Your task to perform on an android device: Go to calendar. Show me events next week Image 0: 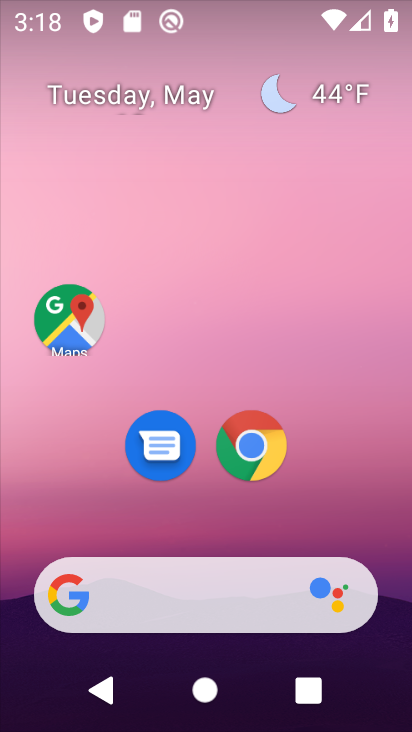
Step 0: drag from (154, 513) to (291, 59)
Your task to perform on an android device: Go to calendar. Show me events next week Image 1: 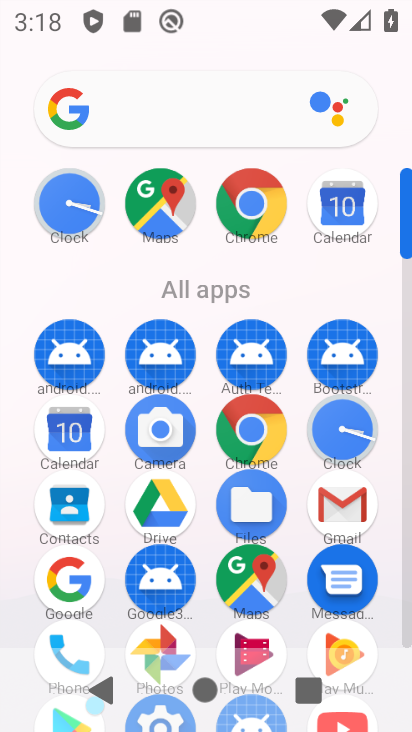
Step 1: click (74, 438)
Your task to perform on an android device: Go to calendar. Show me events next week Image 2: 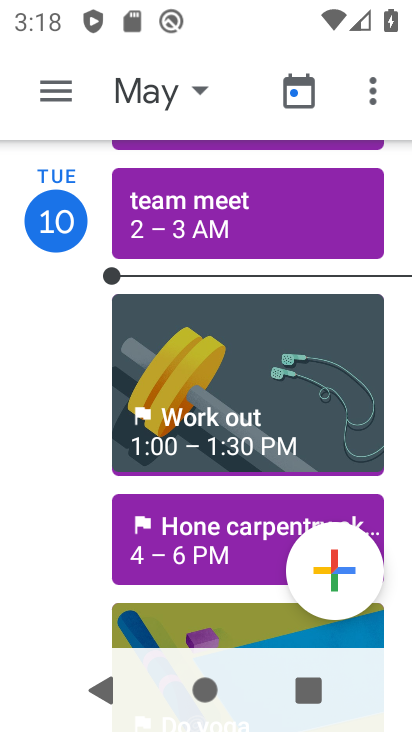
Step 2: click (171, 89)
Your task to perform on an android device: Go to calendar. Show me events next week Image 3: 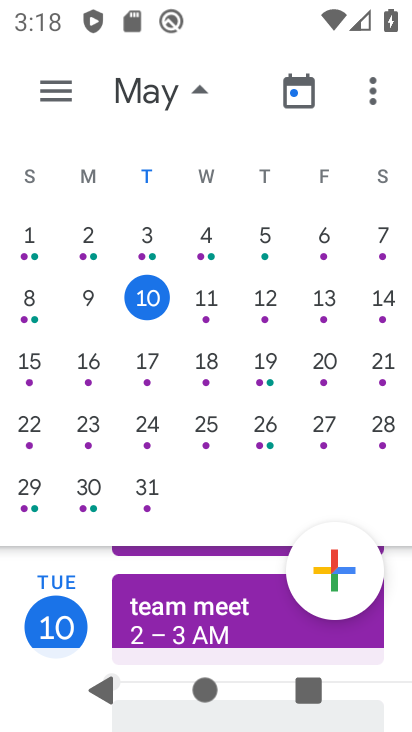
Step 3: drag from (383, 374) to (46, 321)
Your task to perform on an android device: Go to calendar. Show me events next week Image 4: 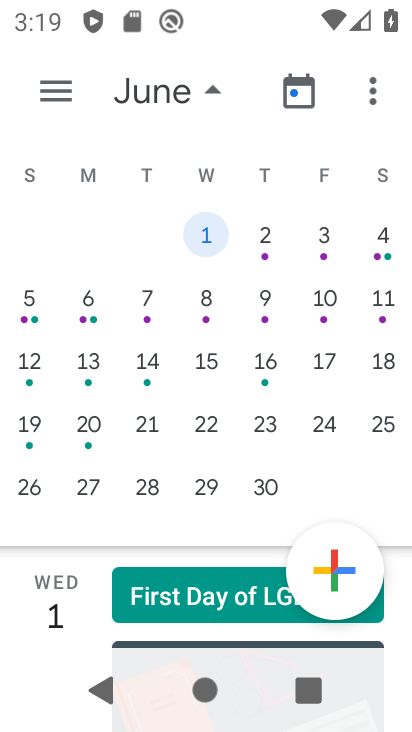
Step 4: drag from (27, 302) to (388, 342)
Your task to perform on an android device: Go to calendar. Show me events next week Image 5: 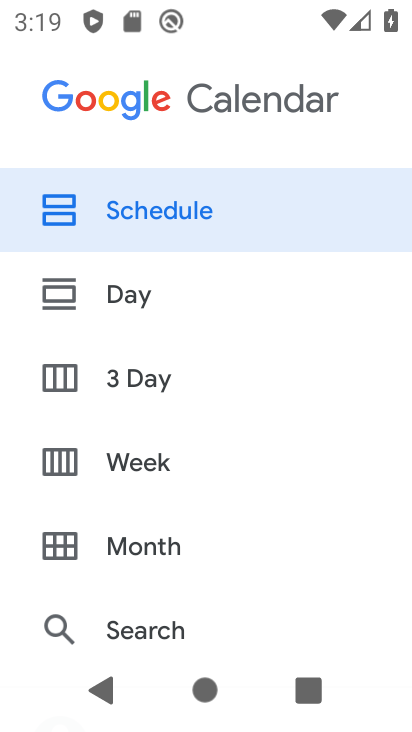
Step 5: drag from (405, 349) to (93, 310)
Your task to perform on an android device: Go to calendar. Show me events next week Image 6: 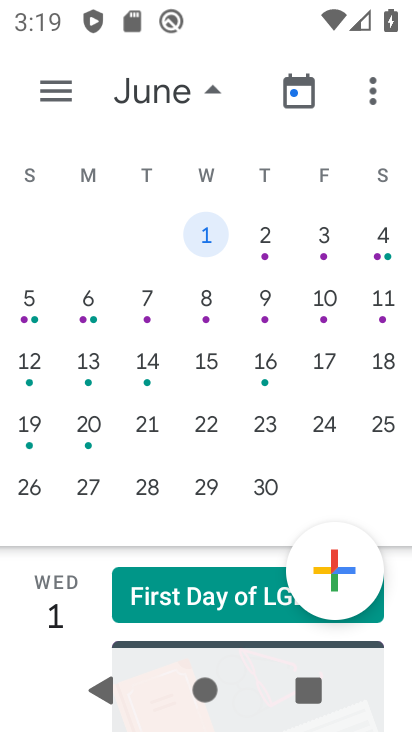
Step 6: drag from (65, 347) to (407, 351)
Your task to perform on an android device: Go to calendar. Show me events next week Image 7: 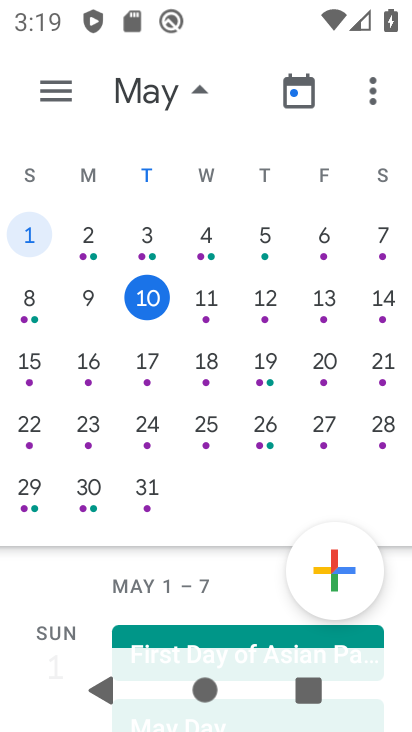
Step 7: click (86, 361)
Your task to perform on an android device: Go to calendar. Show me events next week Image 8: 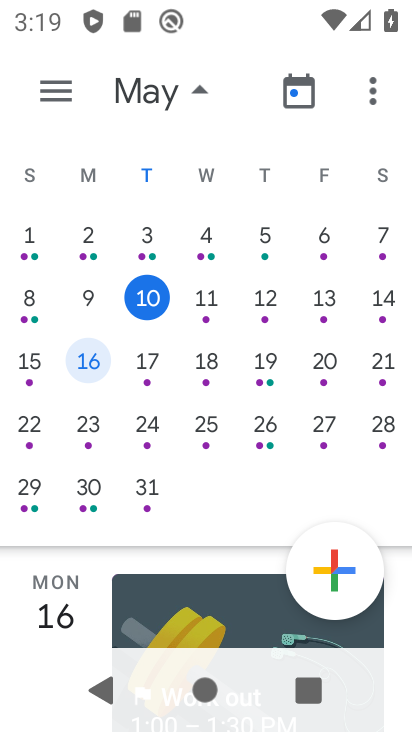
Step 8: drag from (159, 601) to (346, 150)
Your task to perform on an android device: Go to calendar. Show me events next week Image 9: 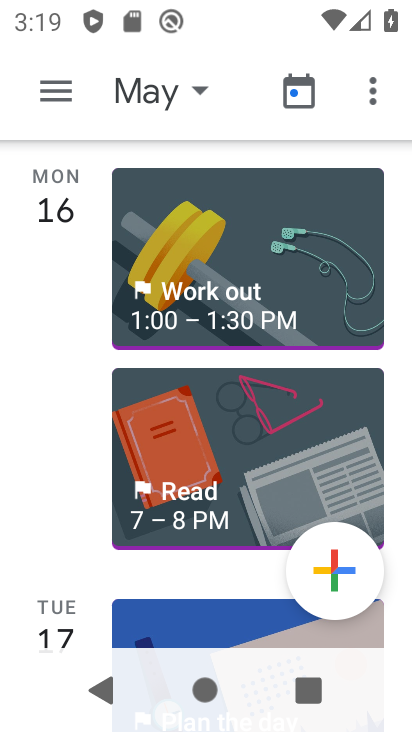
Step 9: drag from (227, 557) to (318, 61)
Your task to perform on an android device: Go to calendar. Show me events next week Image 10: 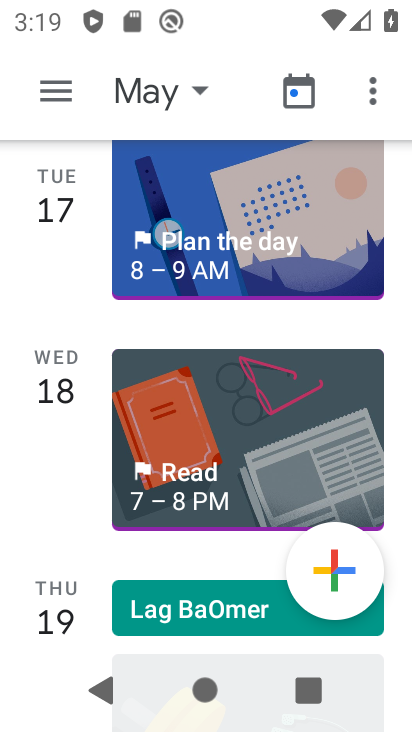
Step 10: click (210, 575)
Your task to perform on an android device: Go to calendar. Show me events next week Image 11: 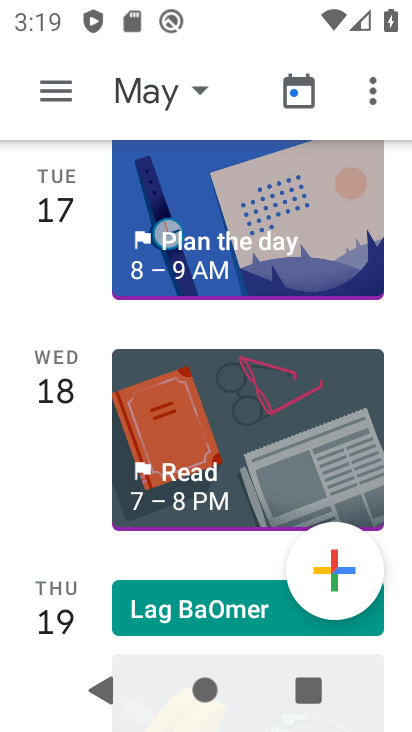
Step 11: click (197, 607)
Your task to perform on an android device: Go to calendar. Show me events next week Image 12: 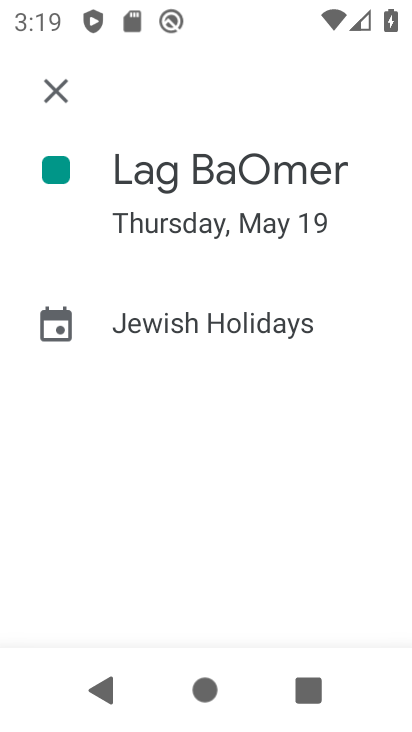
Step 12: task complete